Your task to perform on an android device: Search for Italian restaurants on Maps Image 0: 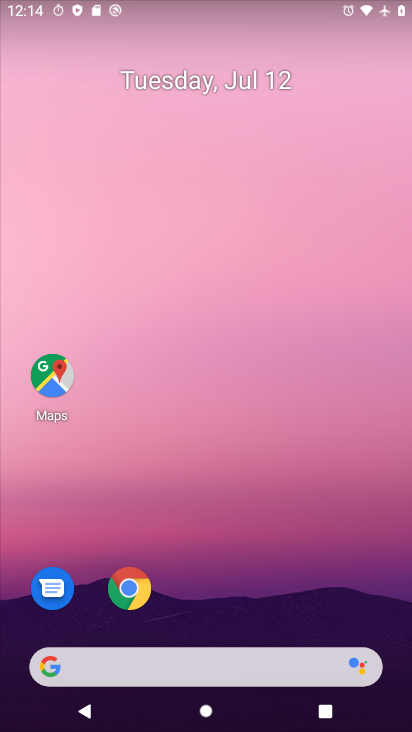
Step 0: click (56, 379)
Your task to perform on an android device: Search for Italian restaurants on Maps Image 1: 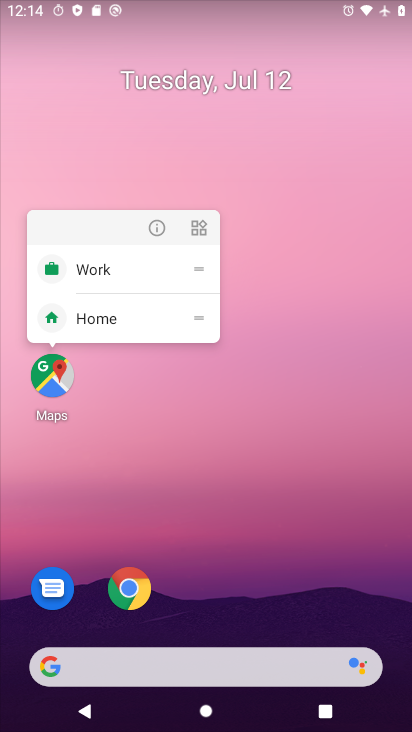
Step 1: click (50, 381)
Your task to perform on an android device: Search for Italian restaurants on Maps Image 2: 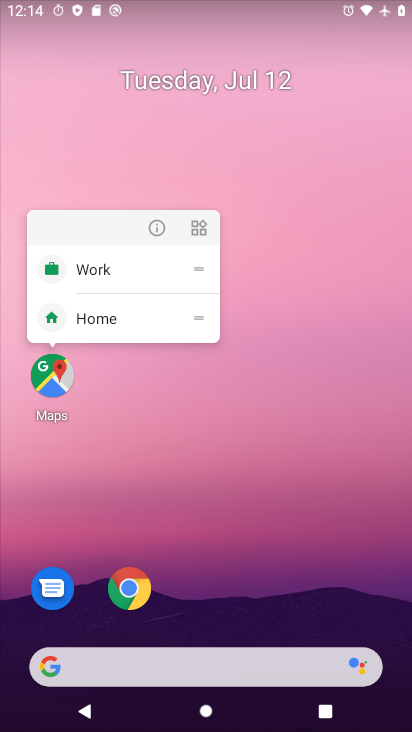
Step 2: click (50, 382)
Your task to perform on an android device: Search for Italian restaurants on Maps Image 3: 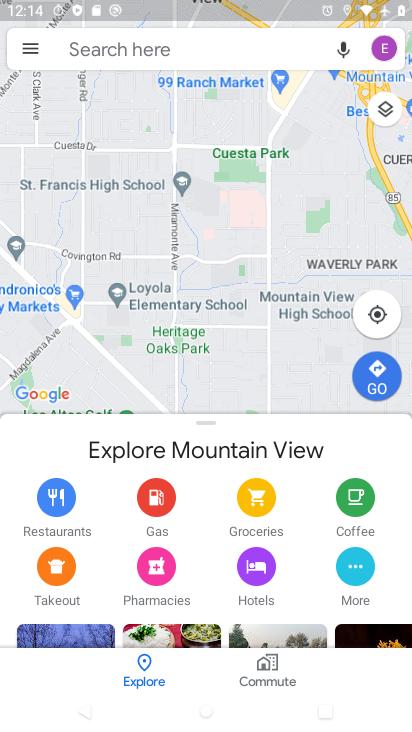
Step 3: click (132, 51)
Your task to perform on an android device: Search for Italian restaurants on Maps Image 4: 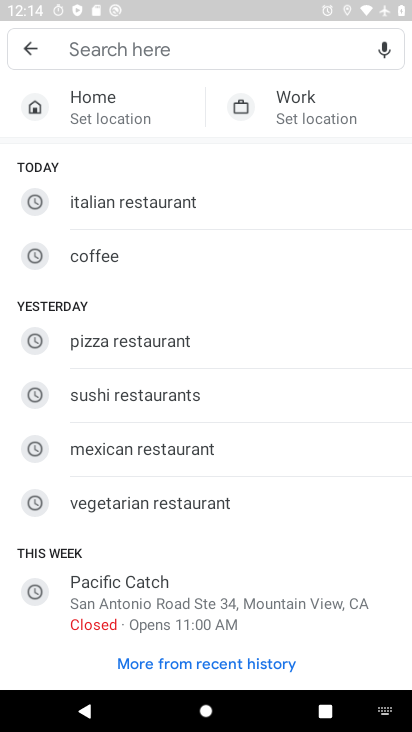
Step 4: click (145, 200)
Your task to perform on an android device: Search for Italian restaurants on Maps Image 5: 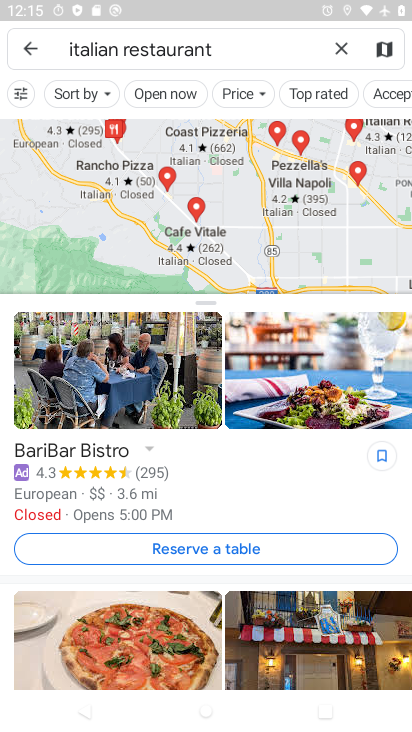
Step 5: task complete